Your task to perform on an android device: snooze an email in the gmail app Image 0: 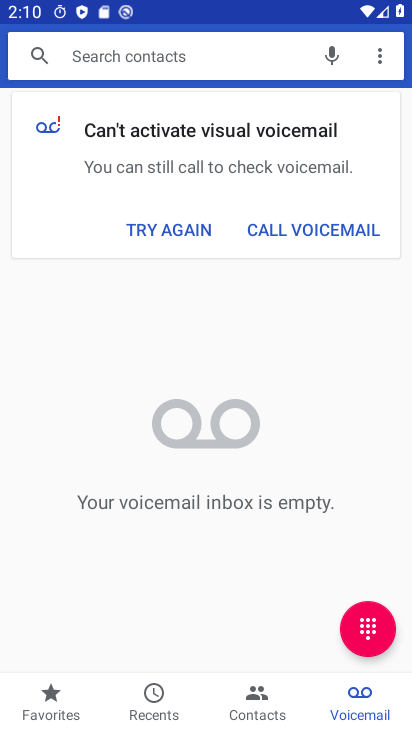
Step 0: press home button
Your task to perform on an android device: snooze an email in the gmail app Image 1: 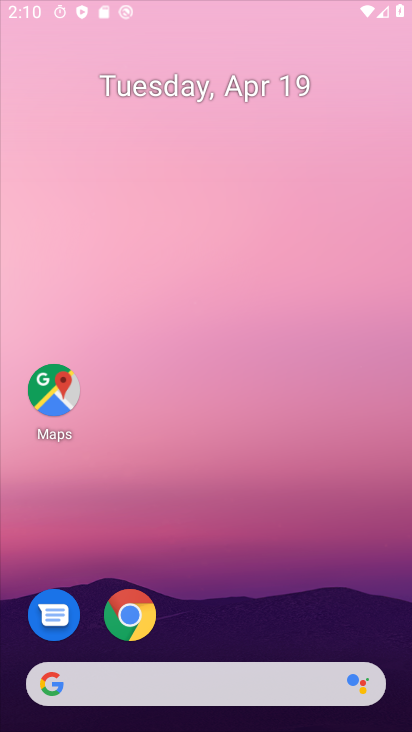
Step 1: drag from (210, 579) to (352, 112)
Your task to perform on an android device: snooze an email in the gmail app Image 2: 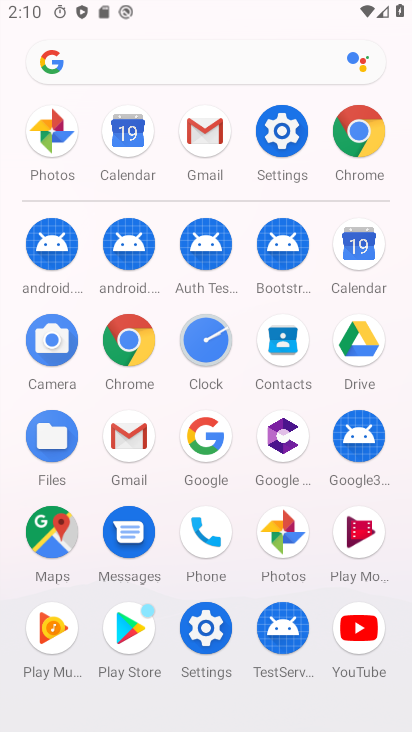
Step 2: click (121, 430)
Your task to perform on an android device: snooze an email in the gmail app Image 3: 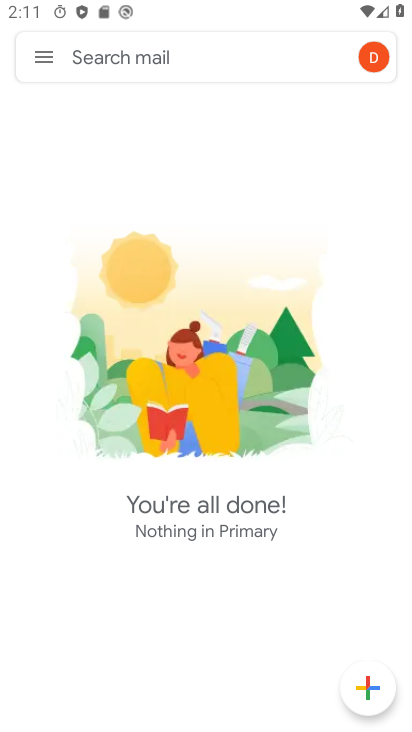
Step 3: drag from (186, 634) to (193, 539)
Your task to perform on an android device: snooze an email in the gmail app Image 4: 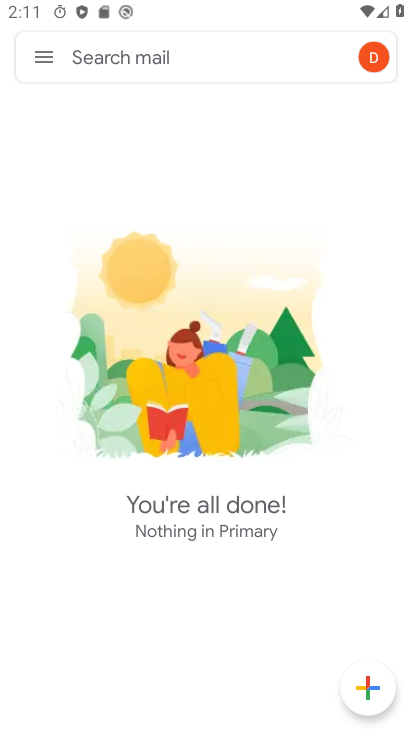
Step 4: drag from (193, 566) to (233, 252)
Your task to perform on an android device: snooze an email in the gmail app Image 5: 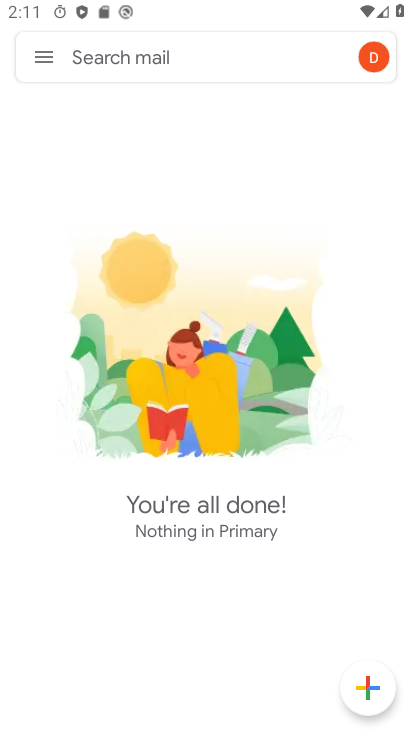
Step 5: click (37, 59)
Your task to perform on an android device: snooze an email in the gmail app Image 6: 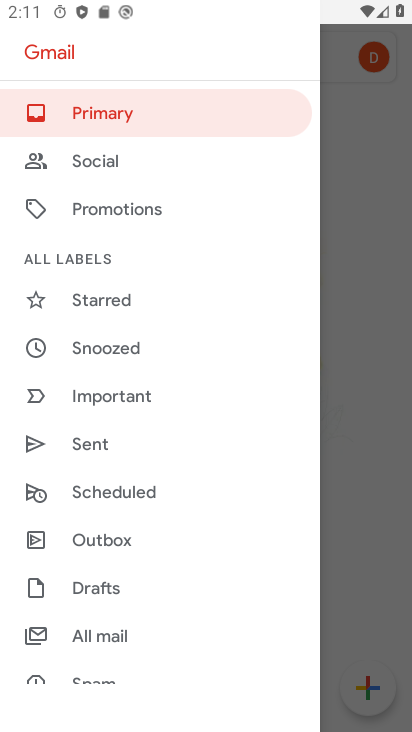
Step 6: task complete